Your task to perform on an android device: open chrome privacy settings Image 0: 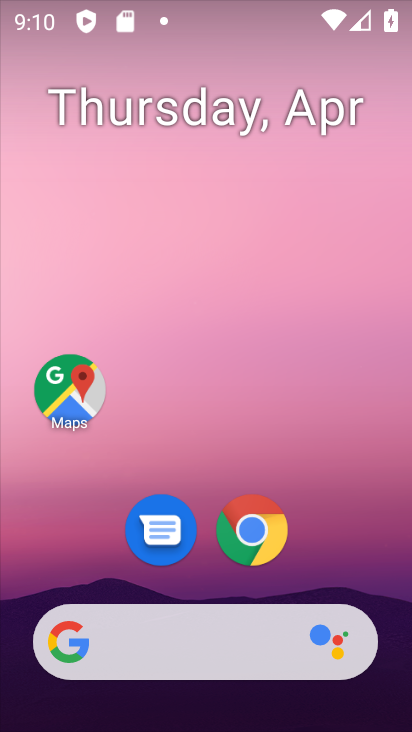
Step 0: drag from (375, 576) to (244, 99)
Your task to perform on an android device: open chrome privacy settings Image 1: 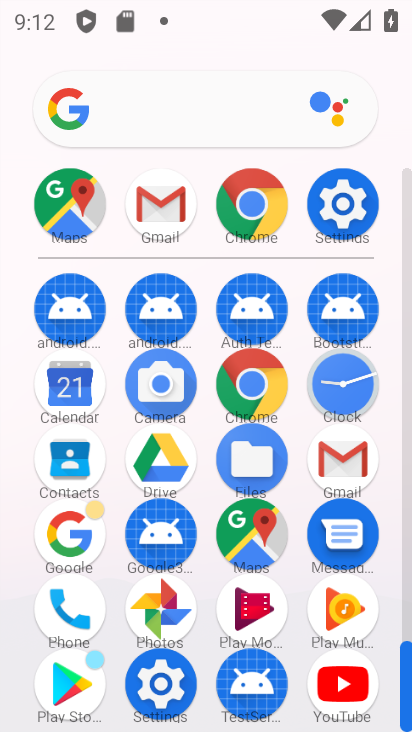
Step 1: click (262, 182)
Your task to perform on an android device: open chrome privacy settings Image 2: 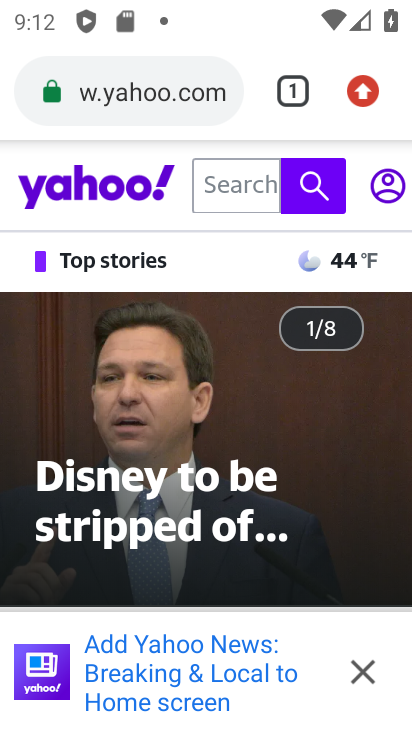
Step 2: press back button
Your task to perform on an android device: open chrome privacy settings Image 3: 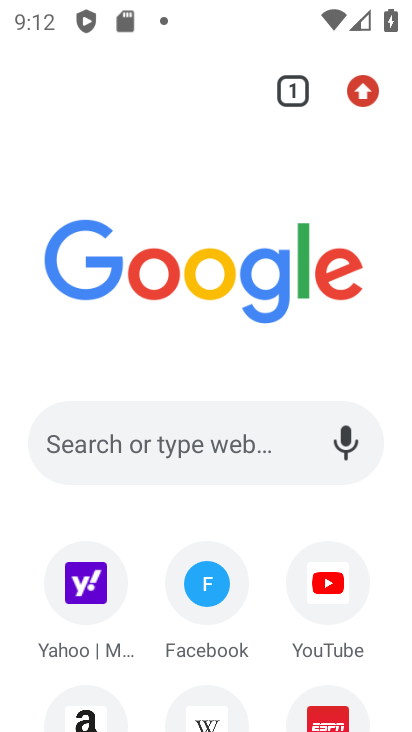
Step 3: click (357, 89)
Your task to perform on an android device: open chrome privacy settings Image 4: 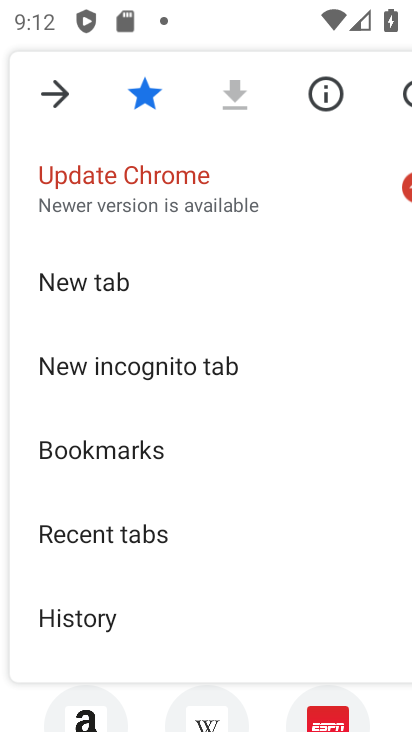
Step 4: drag from (191, 562) to (243, 253)
Your task to perform on an android device: open chrome privacy settings Image 5: 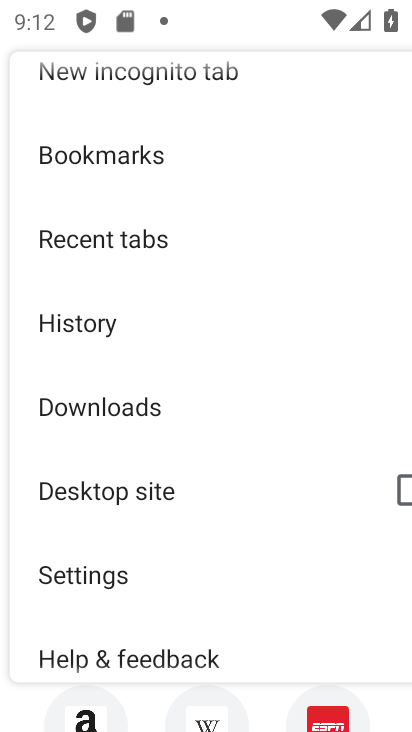
Step 5: drag from (124, 577) to (146, 211)
Your task to perform on an android device: open chrome privacy settings Image 6: 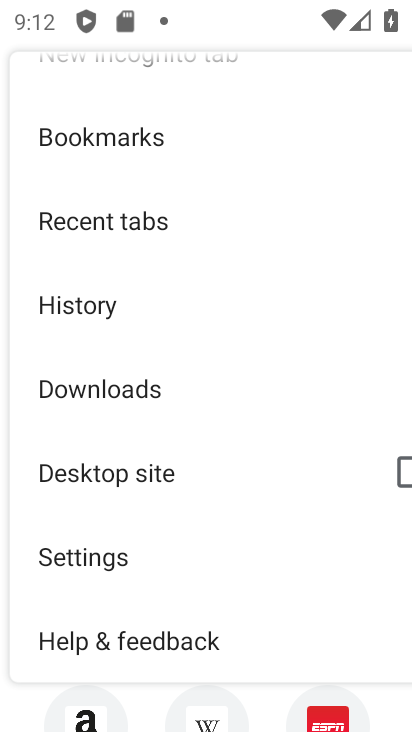
Step 6: click (120, 569)
Your task to perform on an android device: open chrome privacy settings Image 7: 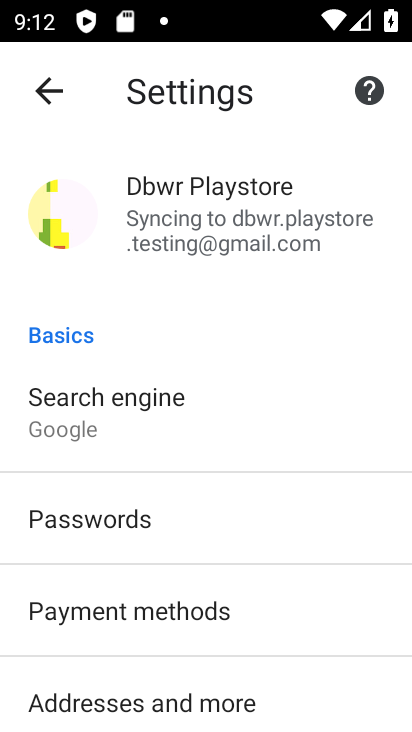
Step 7: drag from (136, 525) to (192, 259)
Your task to perform on an android device: open chrome privacy settings Image 8: 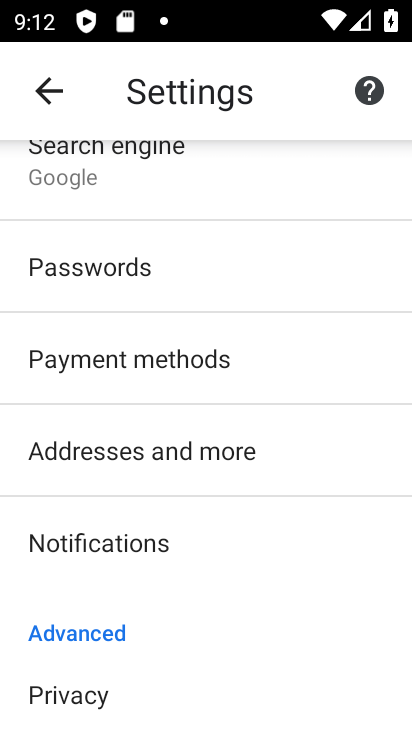
Step 8: click (134, 698)
Your task to perform on an android device: open chrome privacy settings Image 9: 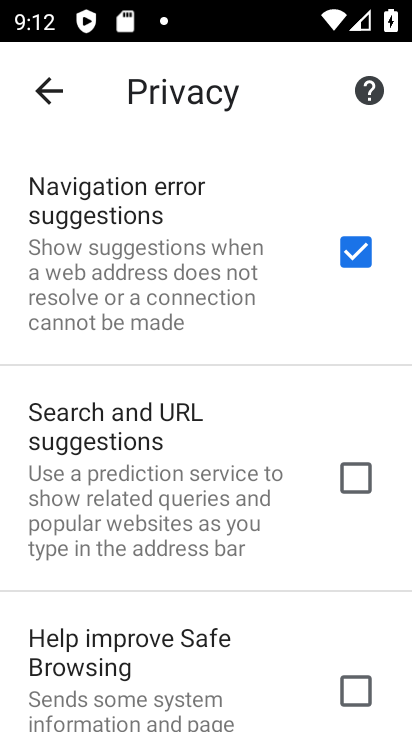
Step 9: task complete